Your task to perform on an android device: What's on my calendar tomorrow? Image 0: 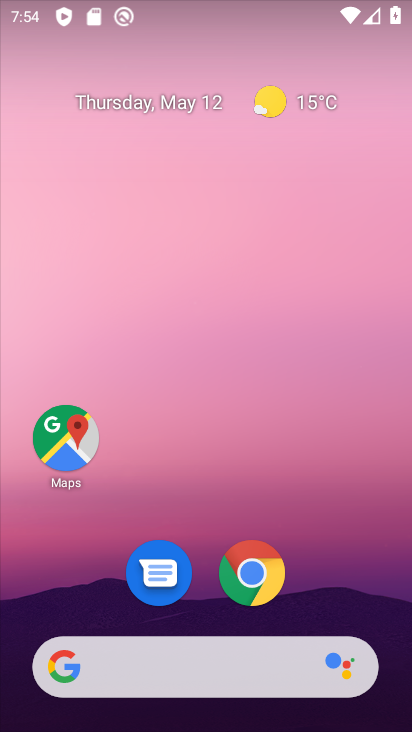
Step 0: drag from (334, 588) to (212, 73)
Your task to perform on an android device: What's on my calendar tomorrow? Image 1: 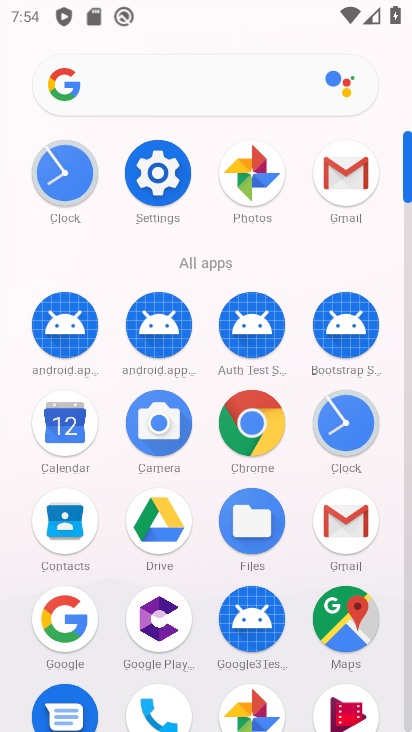
Step 1: click (61, 426)
Your task to perform on an android device: What's on my calendar tomorrow? Image 2: 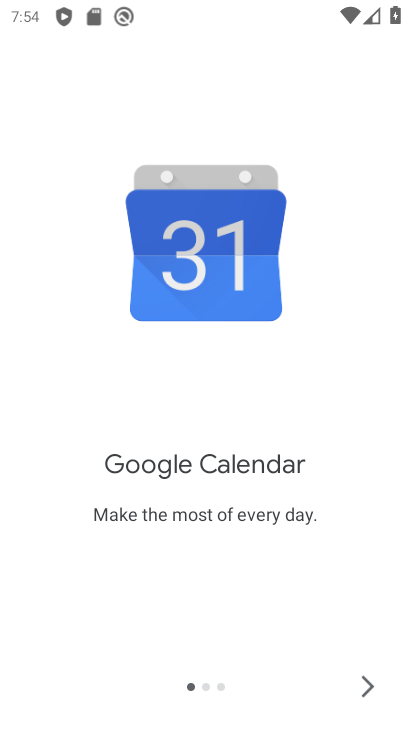
Step 2: click (367, 688)
Your task to perform on an android device: What's on my calendar tomorrow? Image 3: 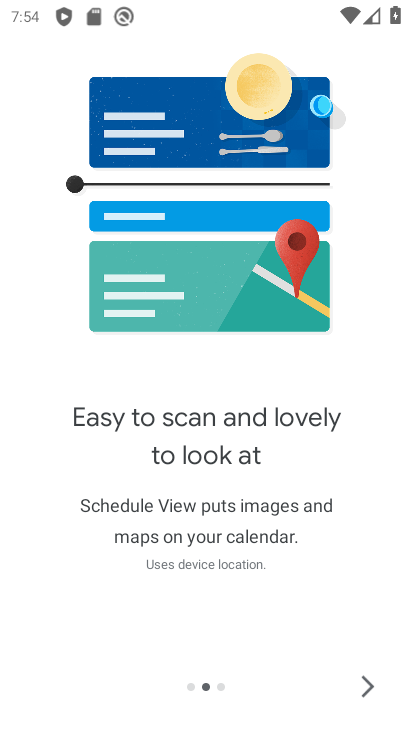
Step 3: click (367, 688)
Your task to perform on an android device: What's on my calendar tomorrow? Image 4: 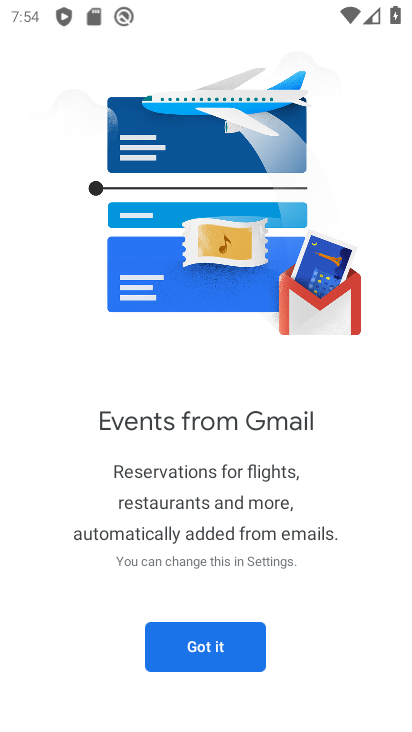
Step 4: click (203, 649)
Your task to perform on an android device: What's on my calendar tomorrow? Image 5: 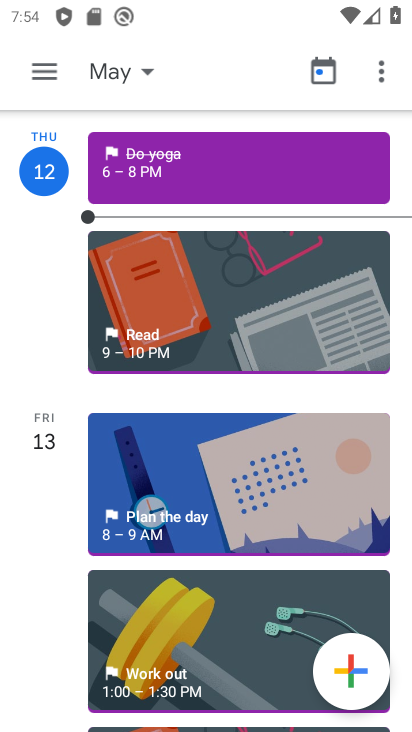
Step 5: click (44, 67)
Your task to perform on an android device: What's on my calendar tomorrow? Image 6: 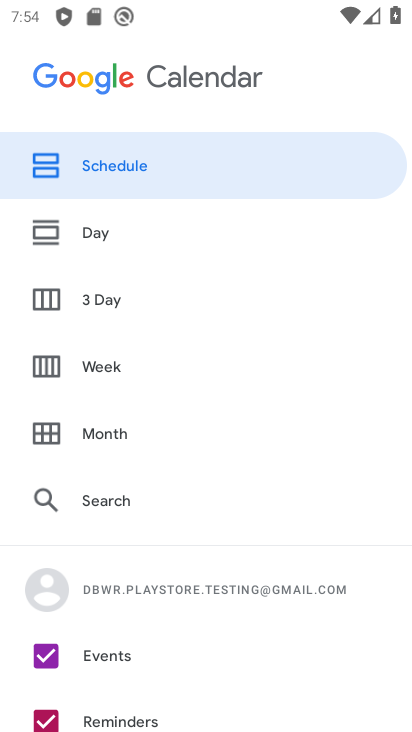
Step 6: click (106, 241)
Your task to perform on an android device: What's on my calendar tomorrow? Image 7: 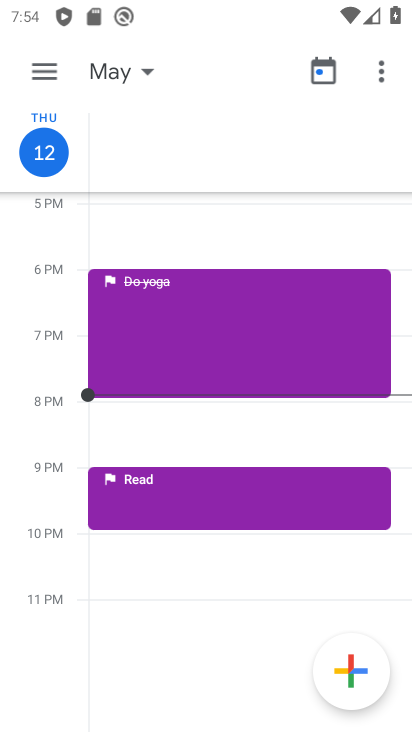
Step 7: click (144, 68)
Your task to perform on an android device: What's on my calendar tomorrow? Image 8: 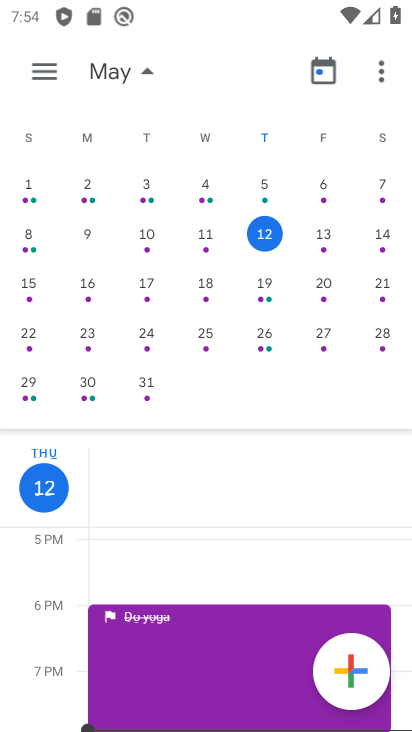
Step 8: click (323, 234)
Your task to perform on an android device: What's on my calendar tomorrow? Image 9: 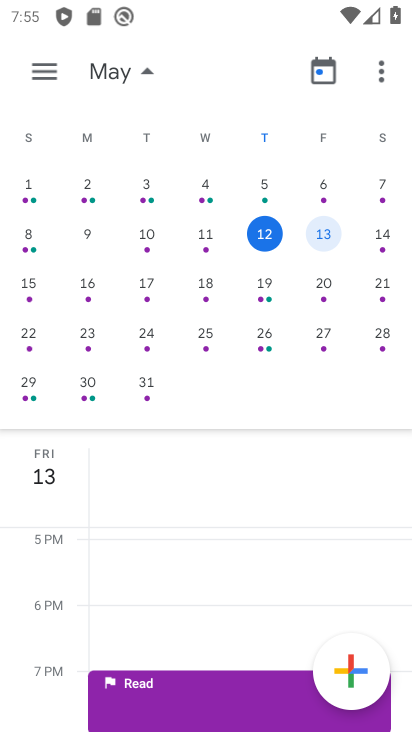
Step 9: task complete